Your task to perform on an android device: delete a single message in the gmail app Image 0: 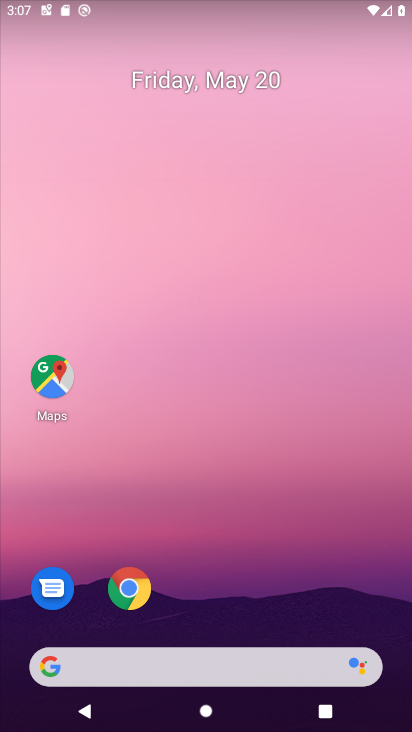
Step 0: drag from (281, 559) to (263, 77)
Your task to perform on an android device: delete a single message in the gmail app Image 1: 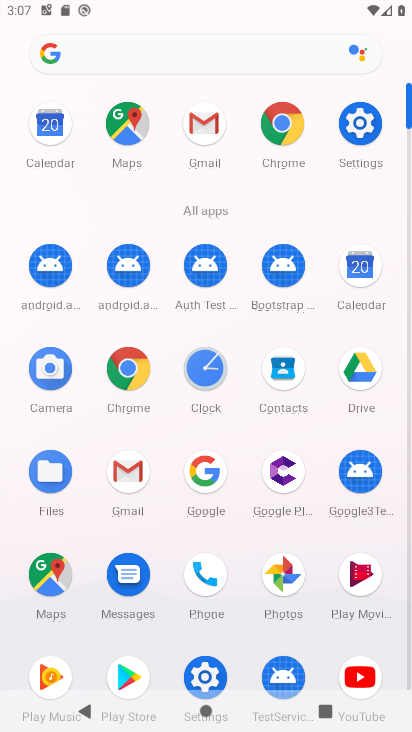
Step 1: click (202, 133)
Your task to perform on an android device: delete a single message in the gmail app Image 2: 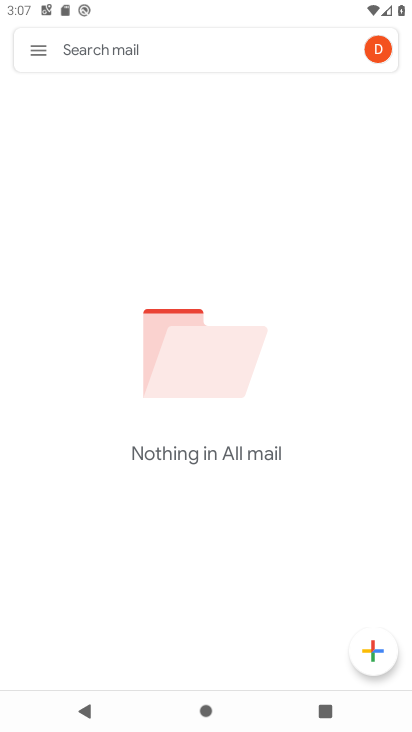
Step 2: click (45, 50)
Your task to perform on an android device: delete a single message in the gmail app Image 3: 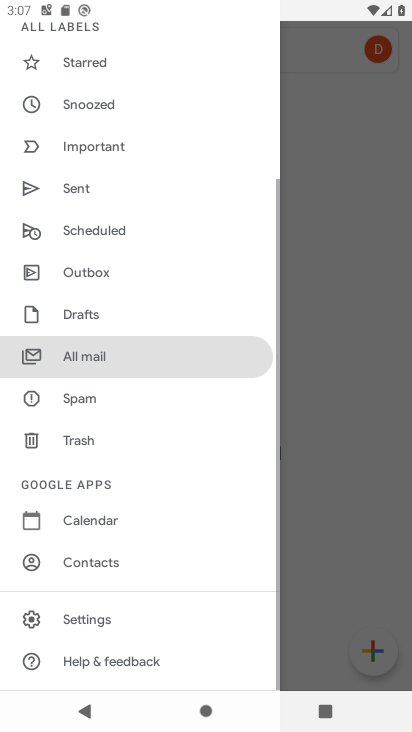
Step 3: drag from (162, 492) to (220, 76)
Your task to perform on an android device: delete a single message in the gmail app Image 4: 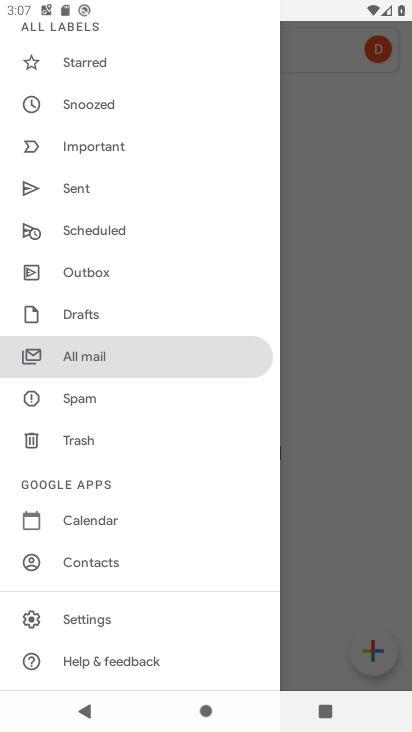
Step 4: click (104, 345)
Your task to perform on an android device: delete a single message in the gmail app Image 5: 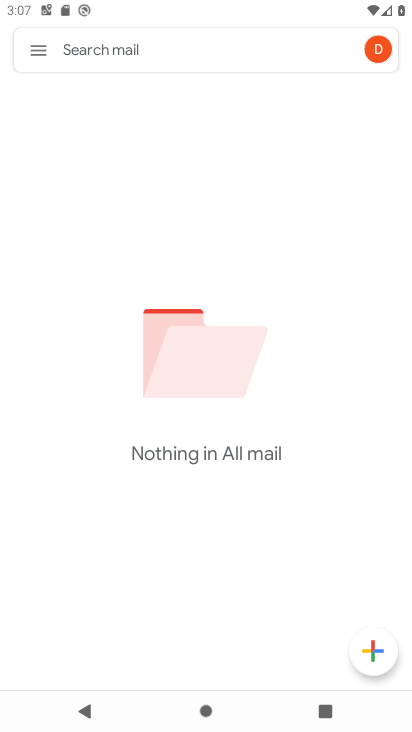
Step 5: task complete